Your task to perform on an android device: Do I have any events today? Image 0: 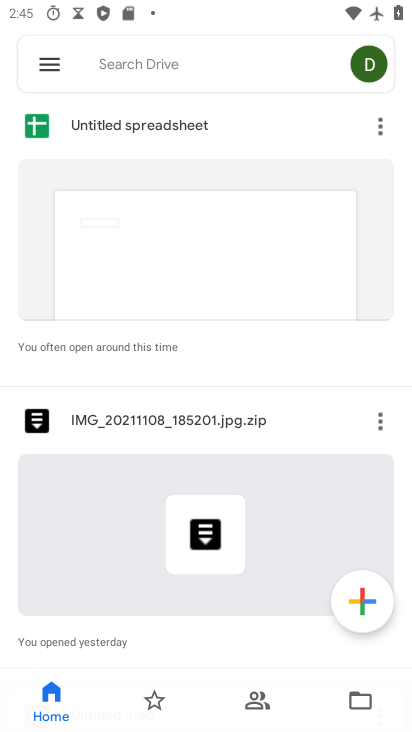
Step 0: press home button
Your task to perform on an android device: Do I have any events today? Image 1: 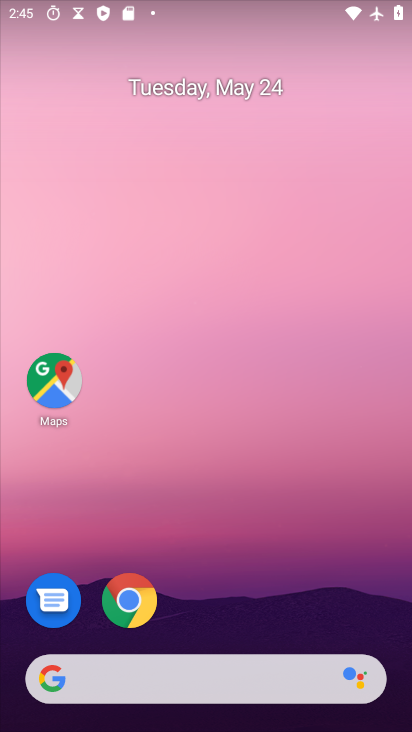
Step 1: click (238, 91)
Your task to perform on an android device: Do I have any events today? Image 2: 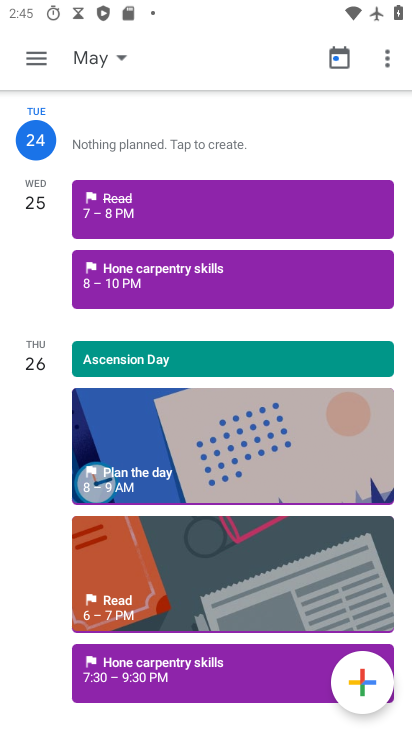
Step 2: task complete